Your task to perform on an android device: move an email to a new category in the gmail app Image 0: 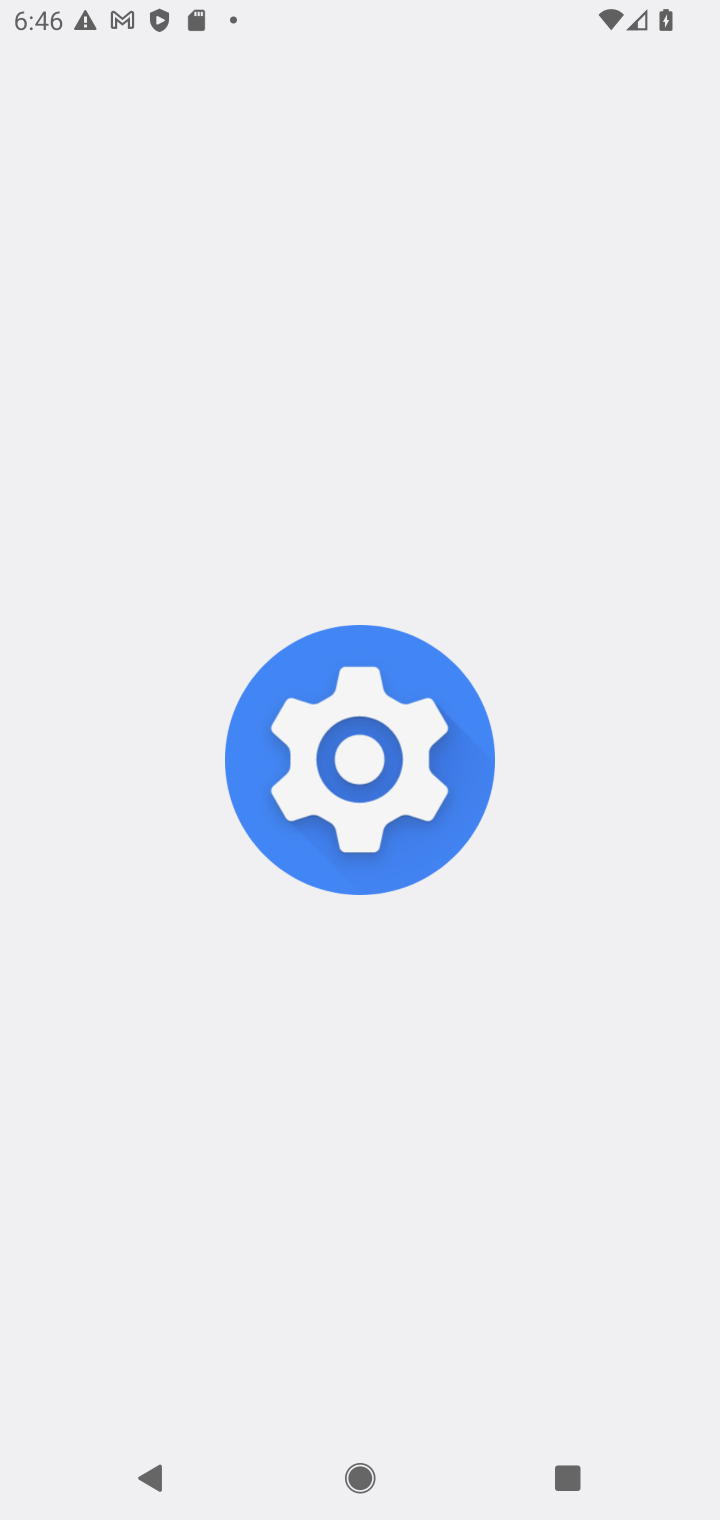
Step 0: press home button
Your task to perform on an android device: move an email to a new category in the gmail app Image 1: 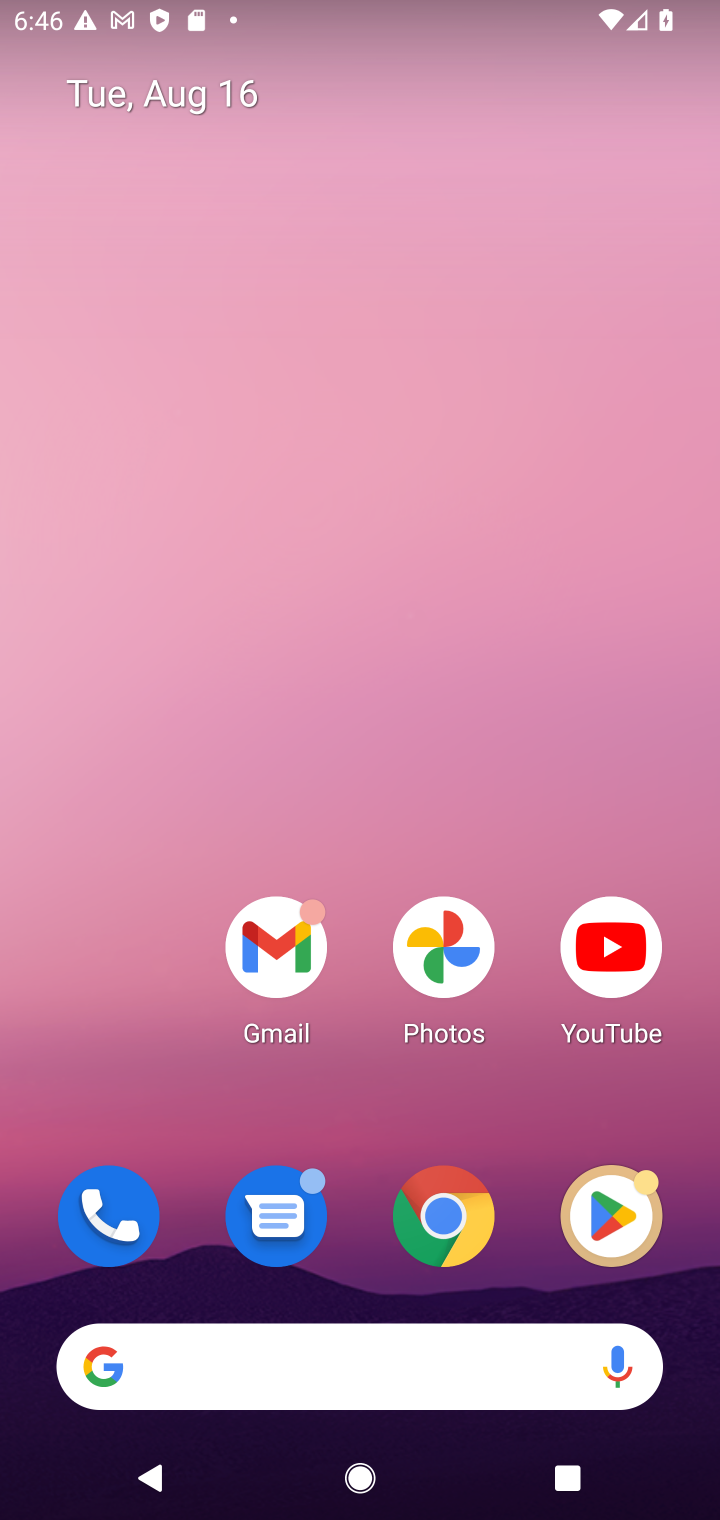
Step 1: drag from (170, 985) to (139, 207)
Your task to perform on an android device: move an email to a new category in the gmail app Image 2: 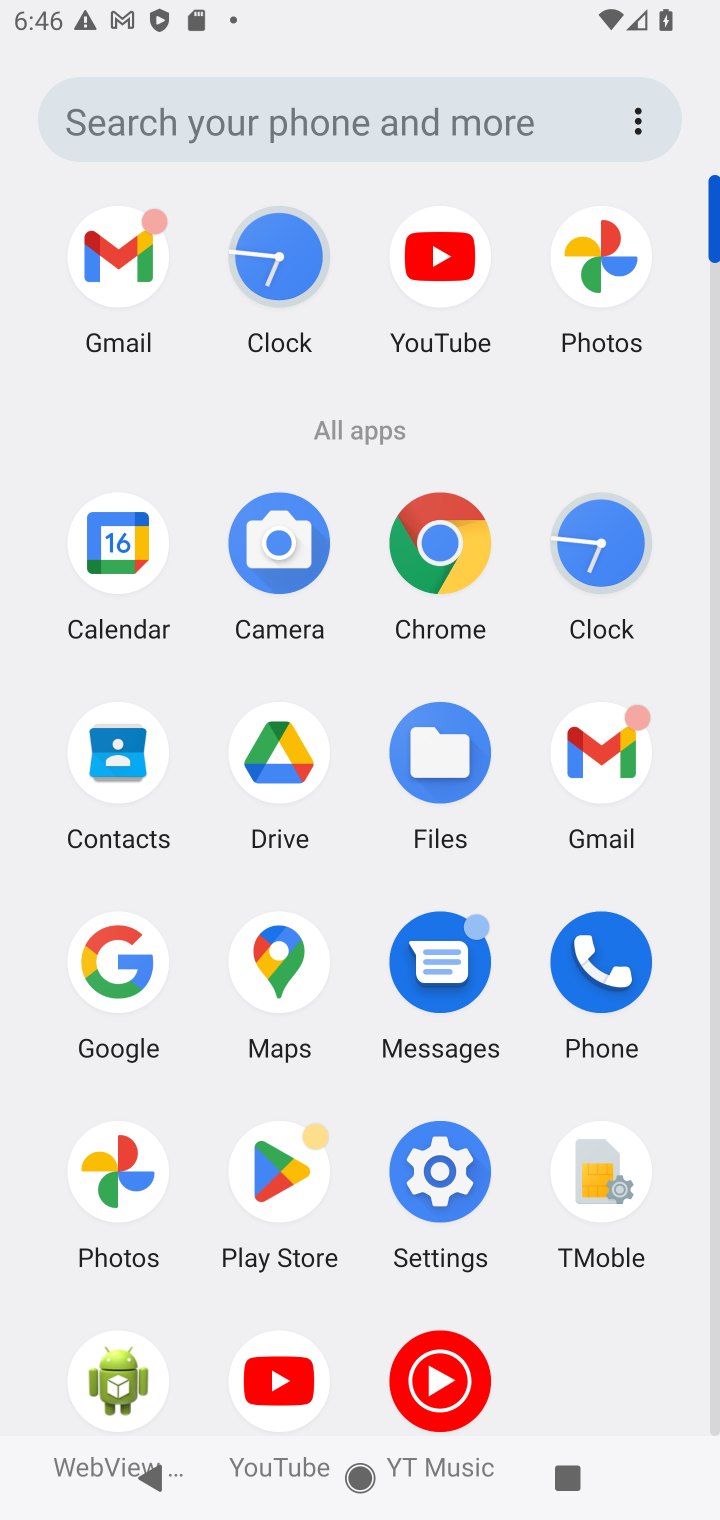
Step 2: click (605, 747)
Your task to perform on an android device: move an email to a new category in the gmail app Image 3: 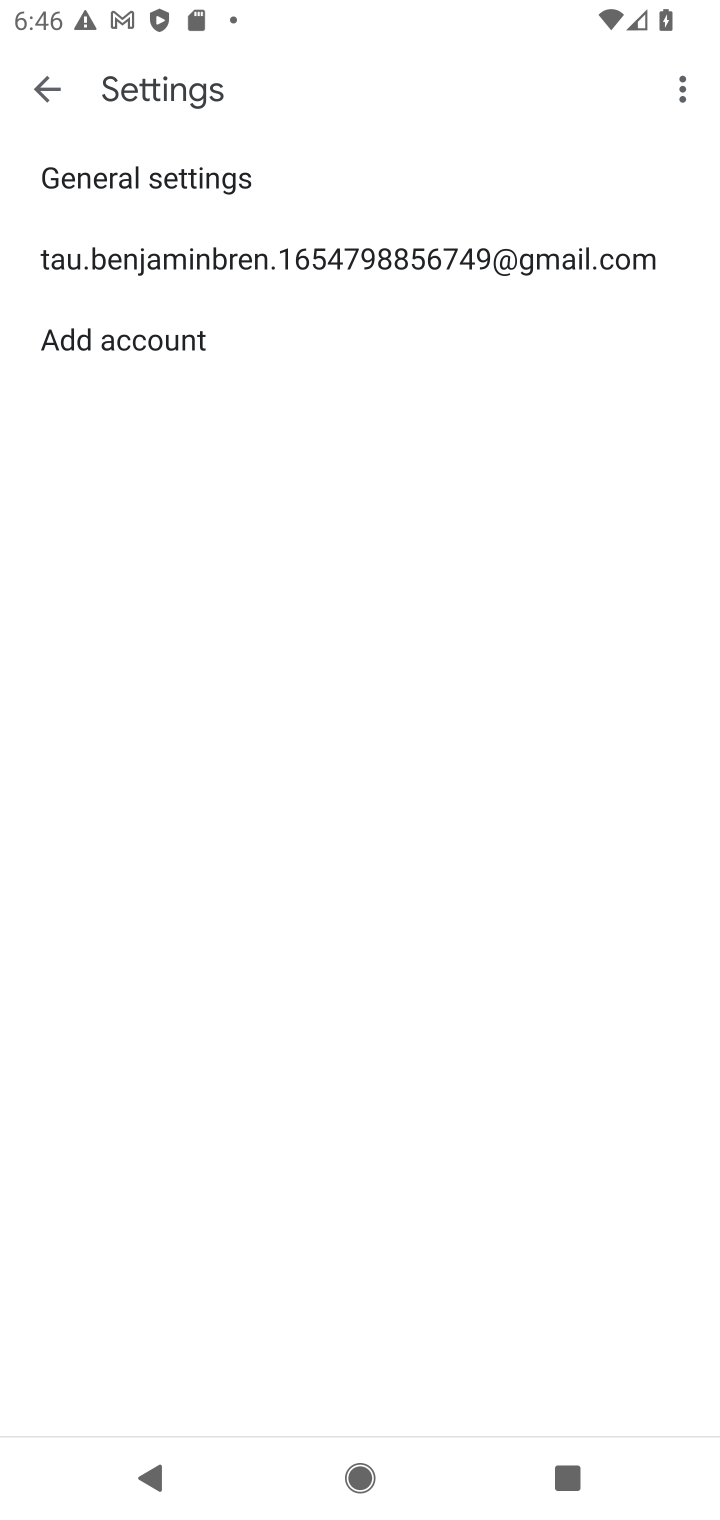
Step 3: press back button
Your task to perform on an android device: move an email to a new category in the gmail app Image 4: 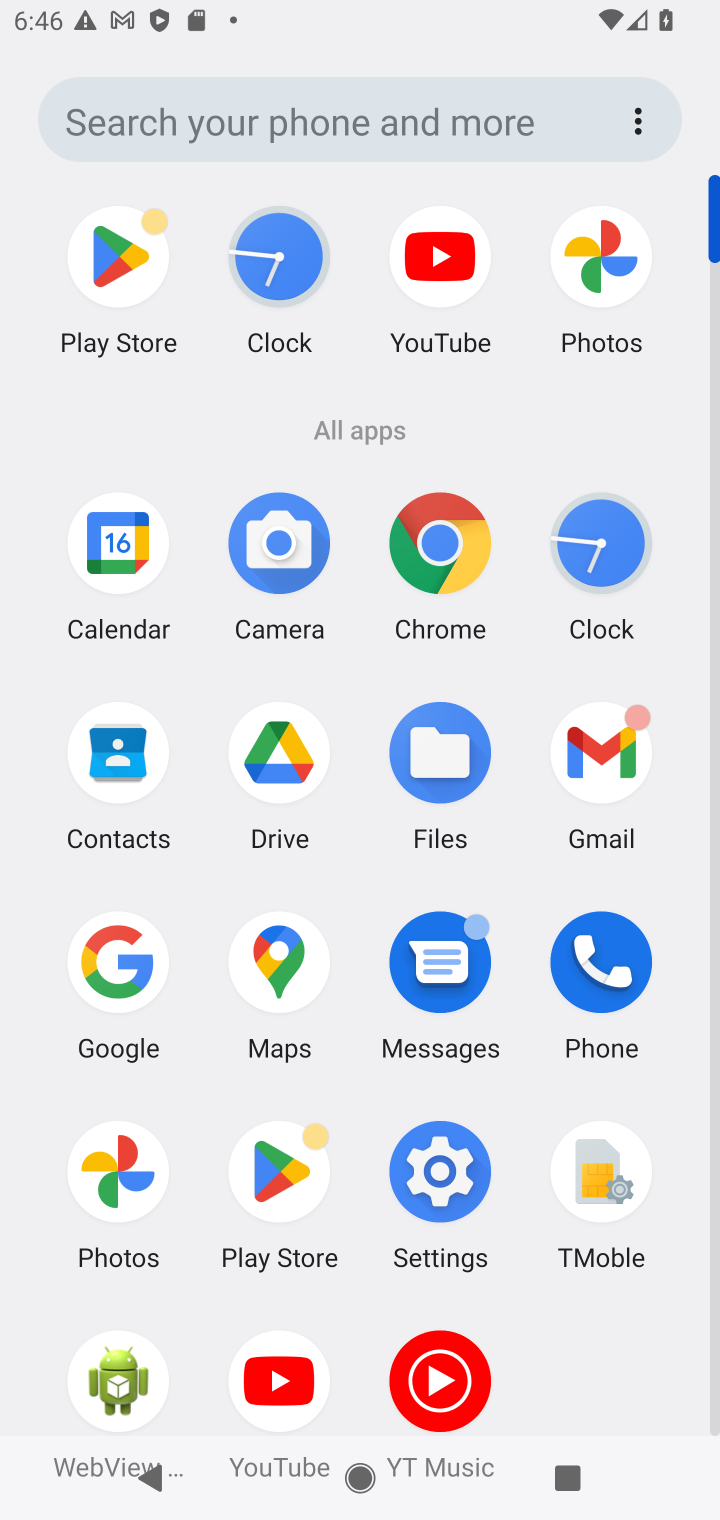
Step 4: click (604, 747)
Your task to perform on an android device: move an email to a new category in the gmail app Image 5: 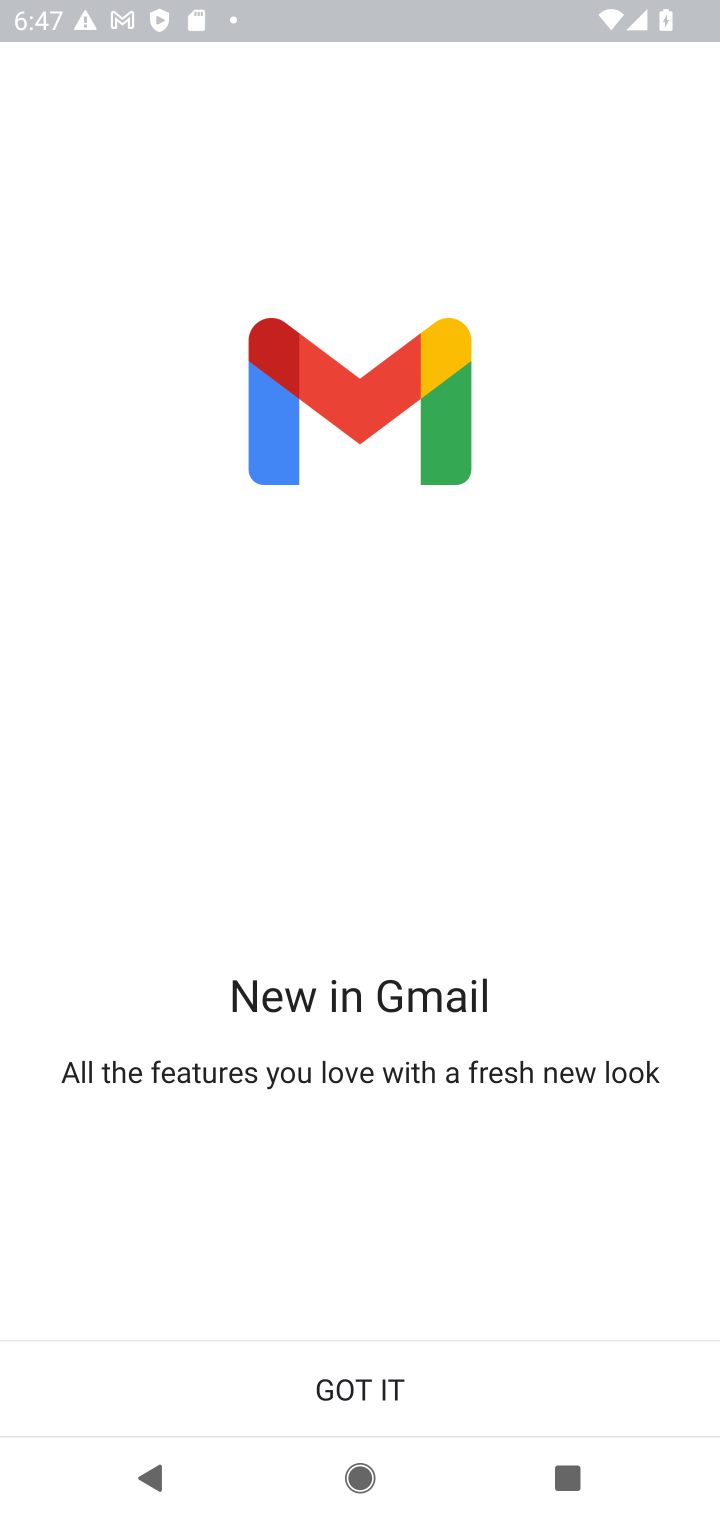
Step 5: click (428, 1389)
Your task to perform on an android device: move an email to a new category in the gmail app Image 6: 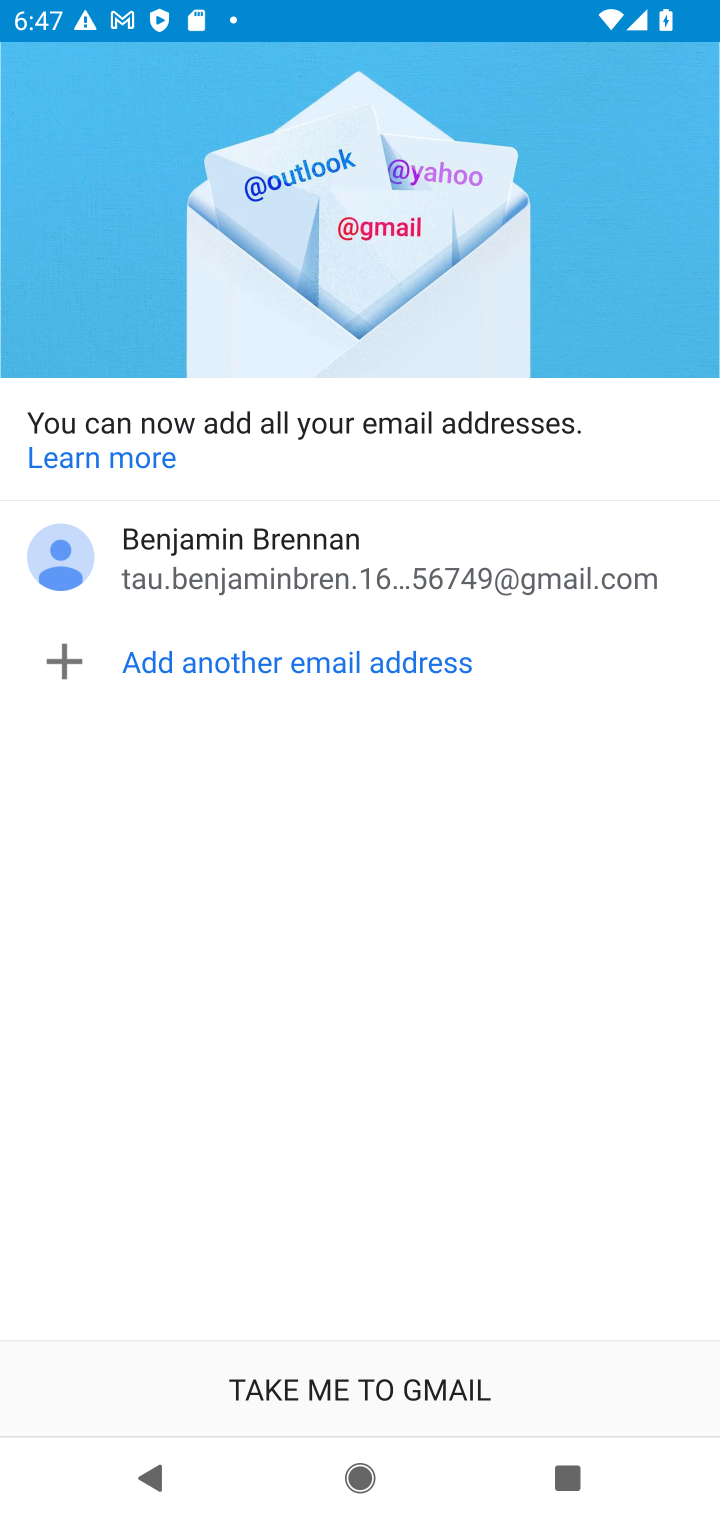
Step 6: click (427, 1391)
Your task to perform on an android device: move an email to a new category in the gmail app Image 7: 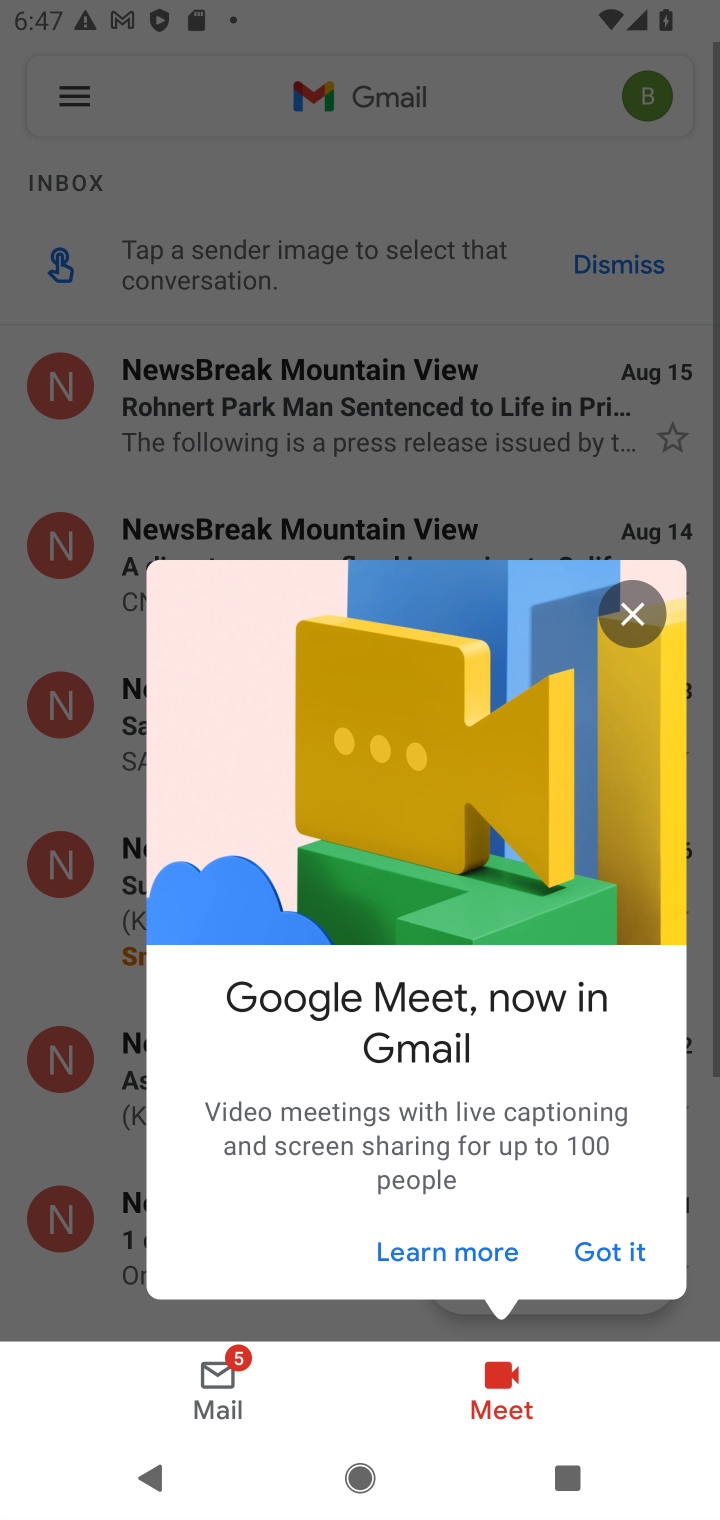
Step 7: click (643, 607)
Your task to perform on an android device: move an email to a new category in the gmail app Image 8: 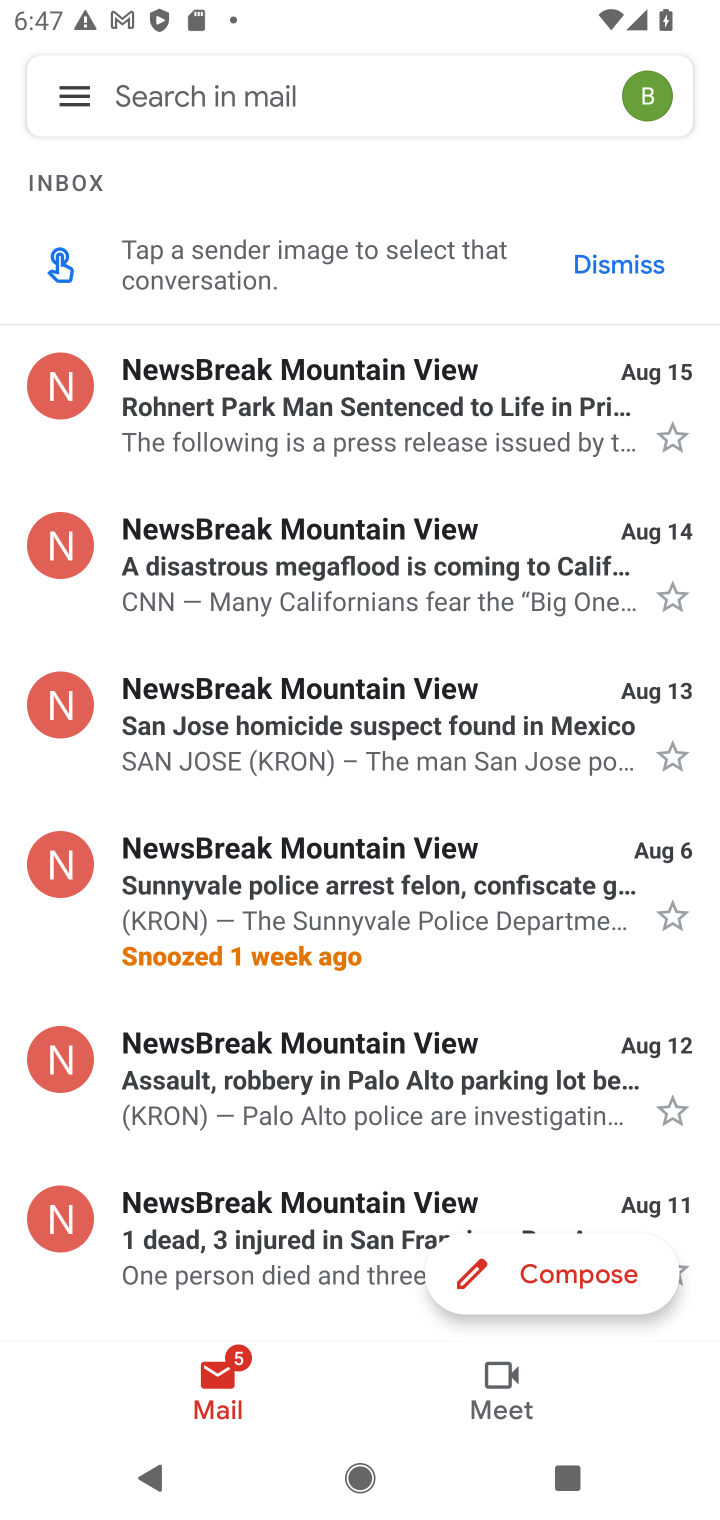
Step 8: click (462, 404)
Your task to perform on an android device: move an email to a new category in the gmail app Image 9: 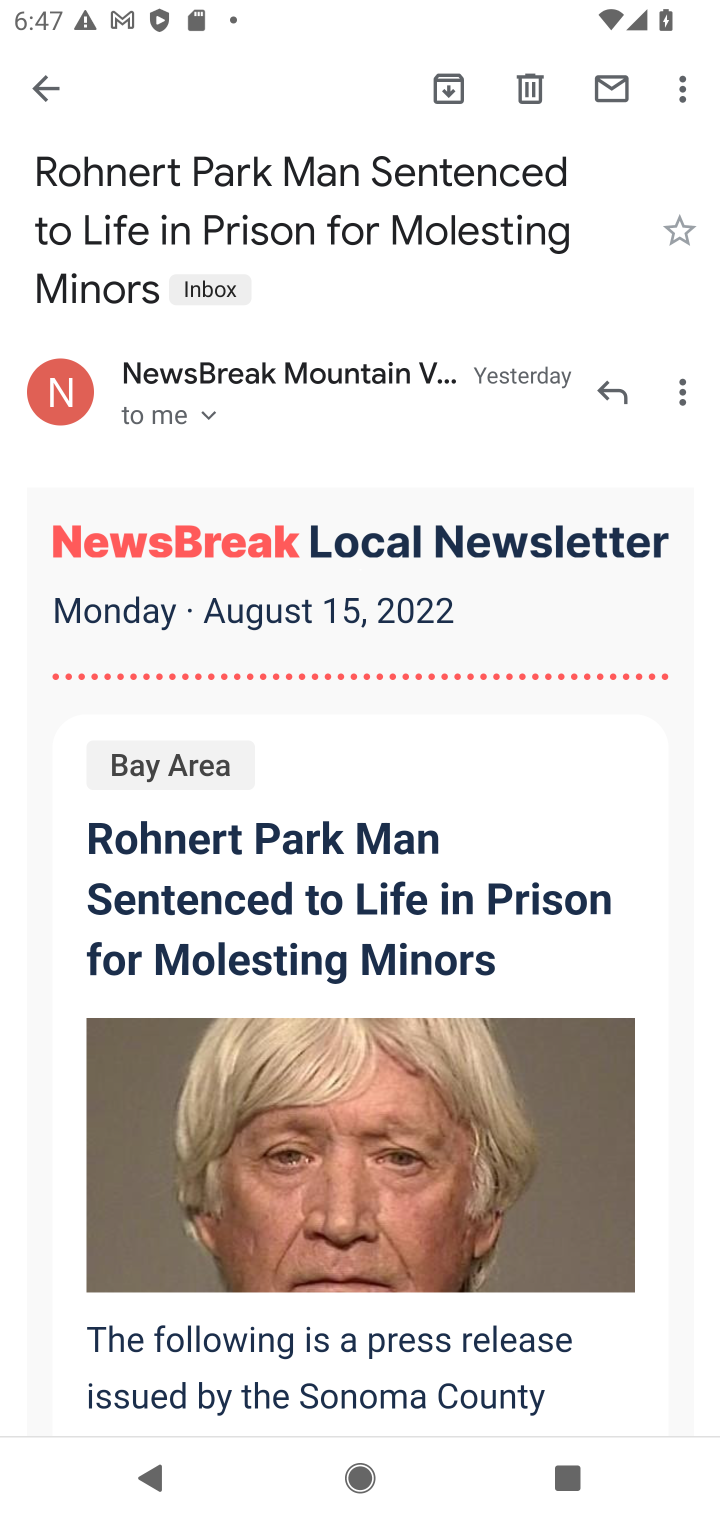
Step 9: click (682, 89)
Your task to perform on an android device: move an email to a new category in the gmail app Image 10: 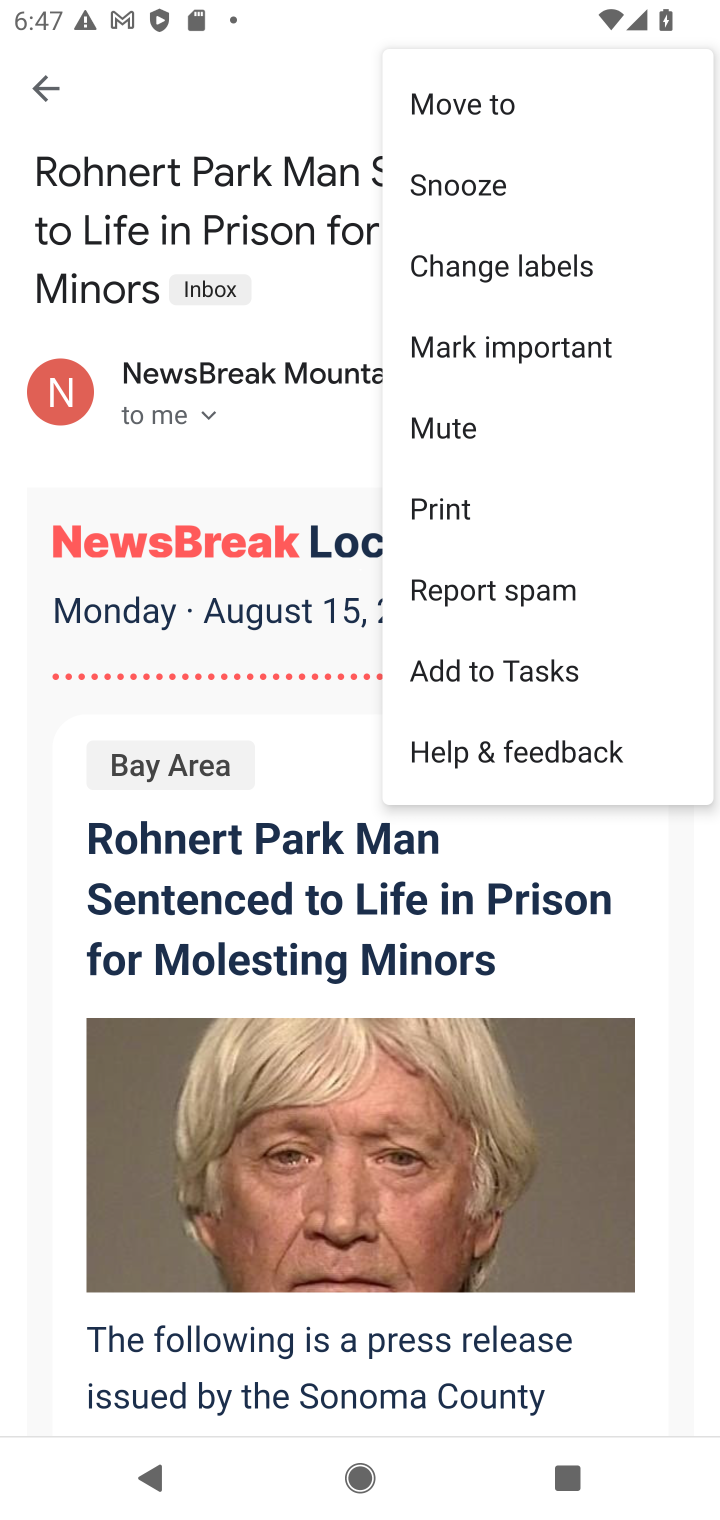
Step 10: click (484, 106)
Your task to perform on an android device: move an email to a new category in the gmail app Image 11: 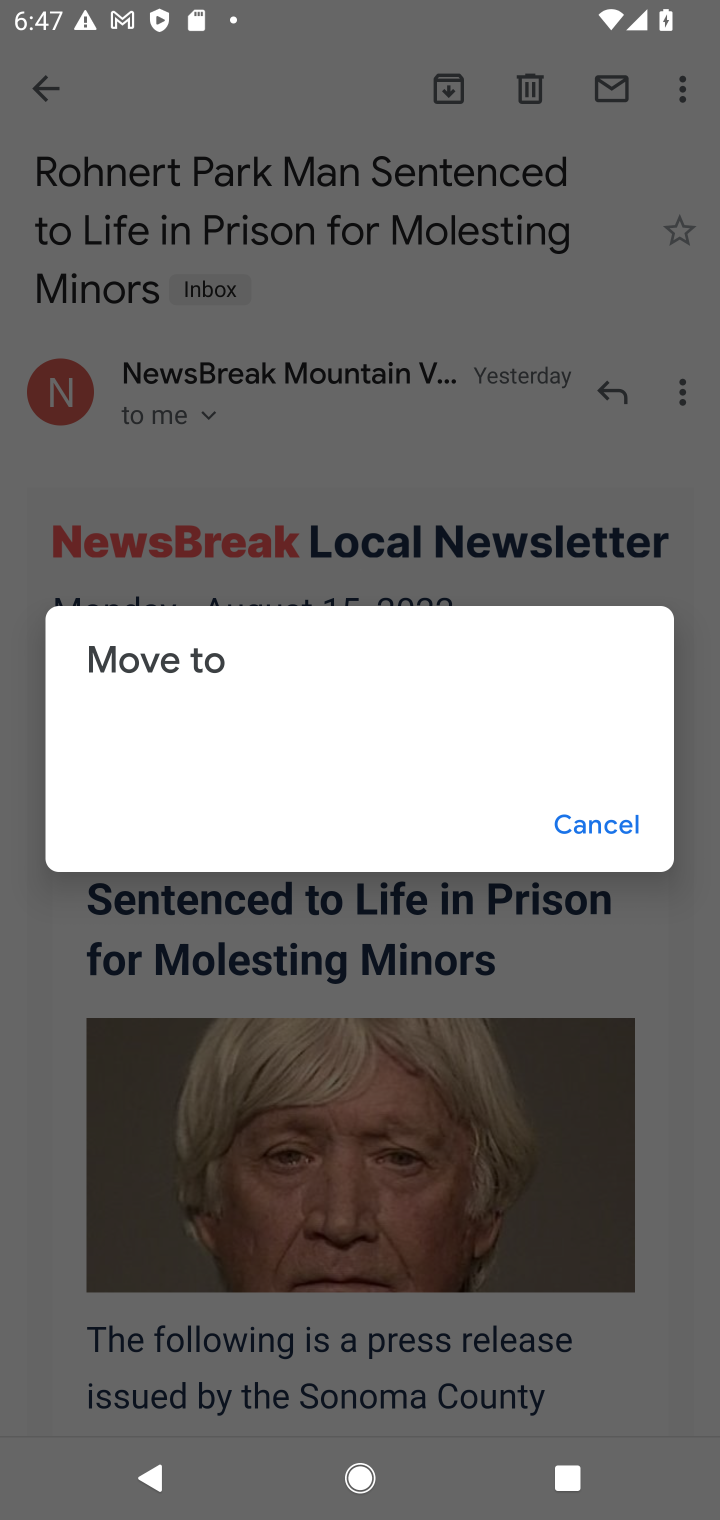
Step 11: task complete